Your task to perform on an android device: turn off sleep mode Image 0: 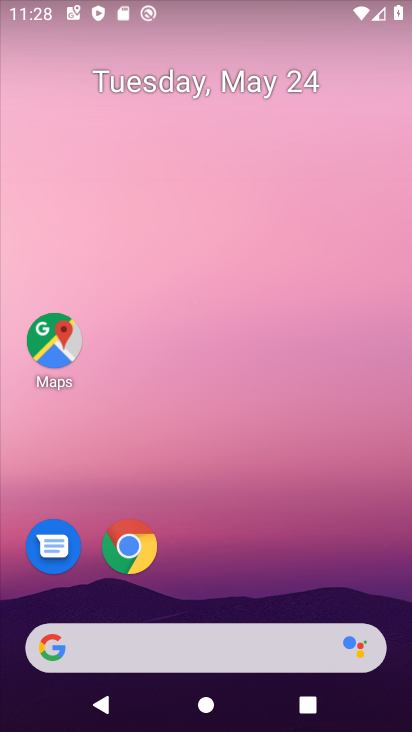
Step 0: drag from (267, 577) to (225, 76)
Your task to perform on an android device: turn off sleep mode Image 1: 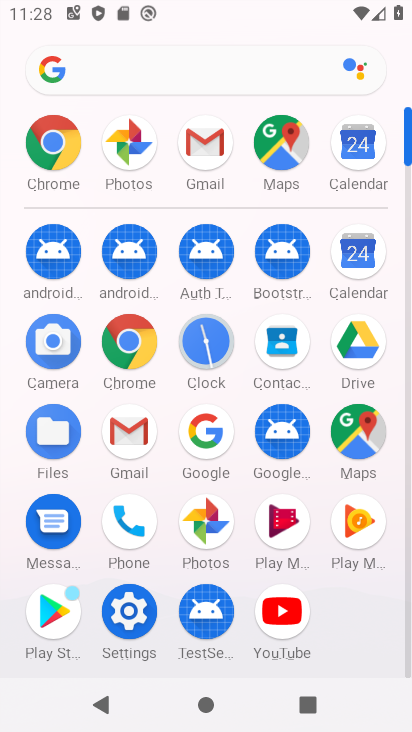
Step 1: click (129, 617)
Your task to perform on an android device: turn off sleep mode Image 2: 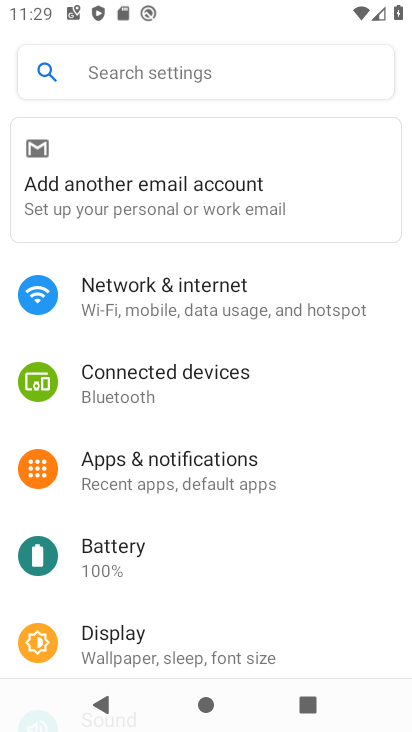
Step 2: click (175, 643)
Your task to perform on an android device: turn off sleep mode Image 3: 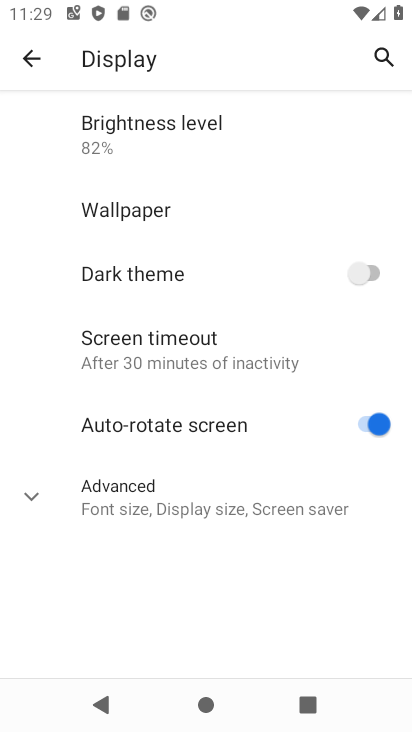
Step 3: click (203, 514)
Your task to perform on an android device: turn off sleep mode Image 4: 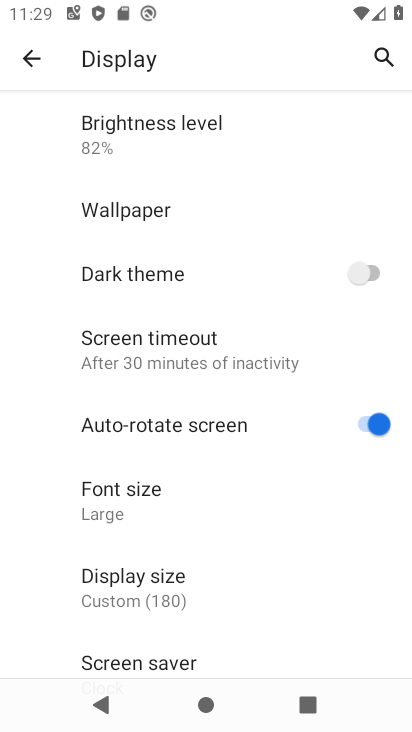
Step 4: task complete